Your task to perform on an android device: star an email in the gmail app Image 0: 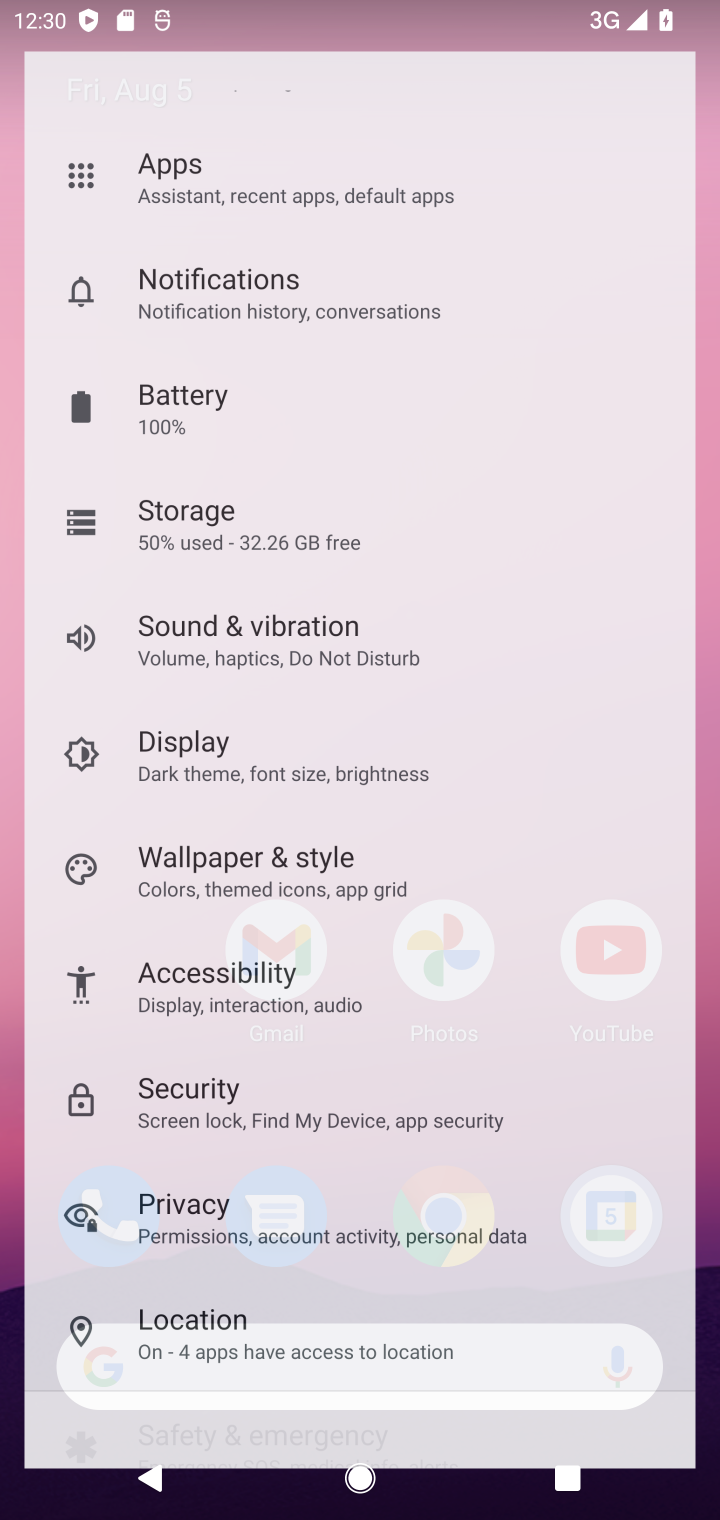
Step 0: press home button
Your task to perform on an android device: star an email in the gmail app Image 1: 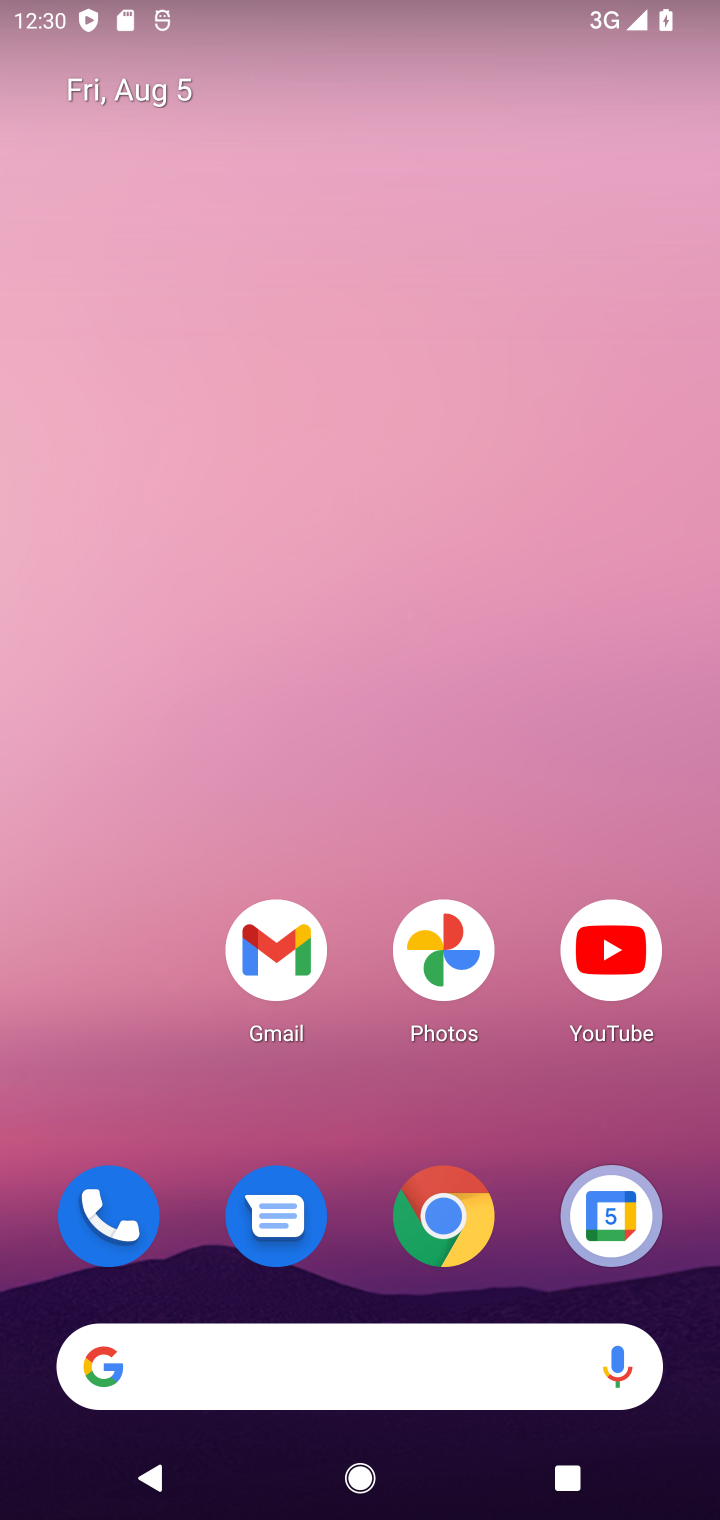
Step 1: press home button
Your task to perform on an android device: star an email in the gmail app Image 2: 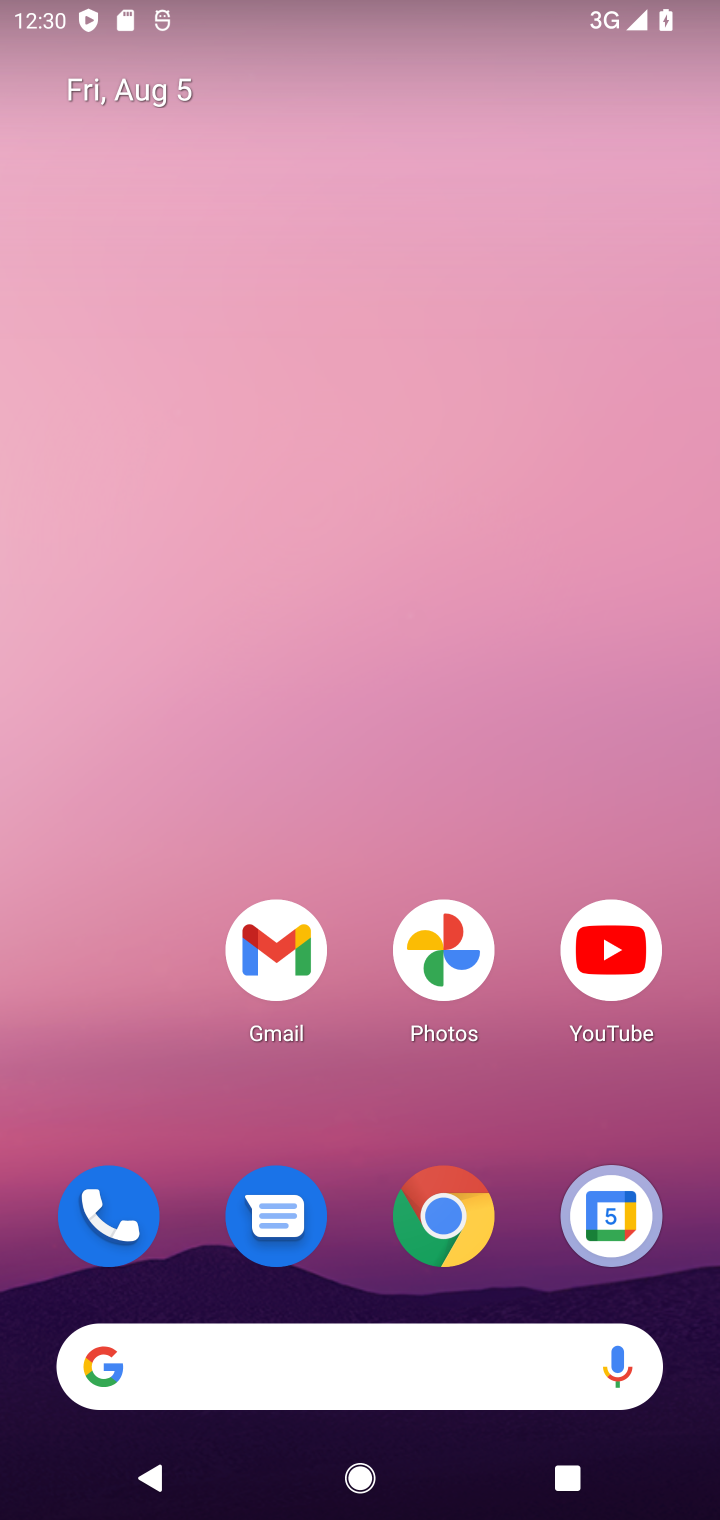
Step 2: drag from (471, 1363) to (568, 10)
Your task to perform on an android device: star an email in the gmail app Image 3: 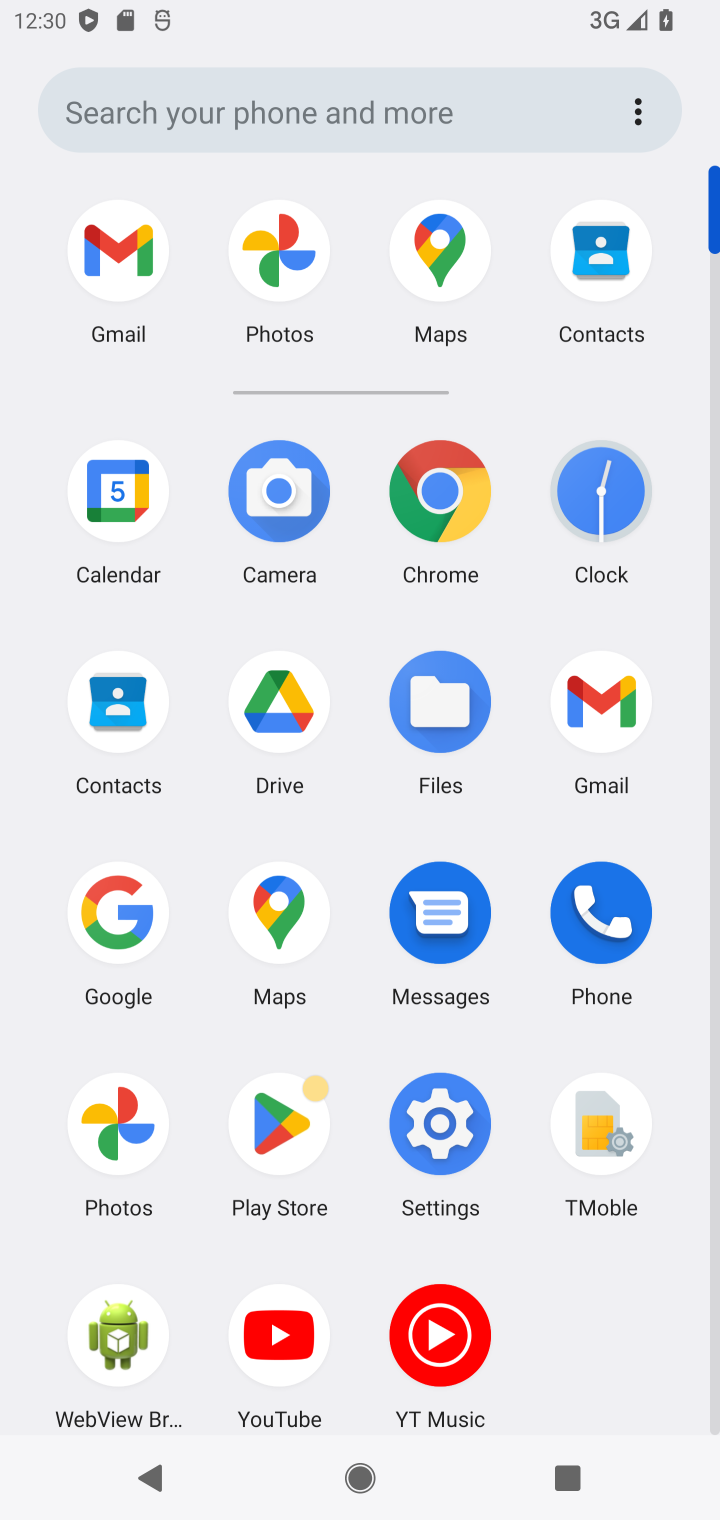
Step 3: click (598, 694)
Your task to perform on an android device: star an email in the gmail app Image 4: 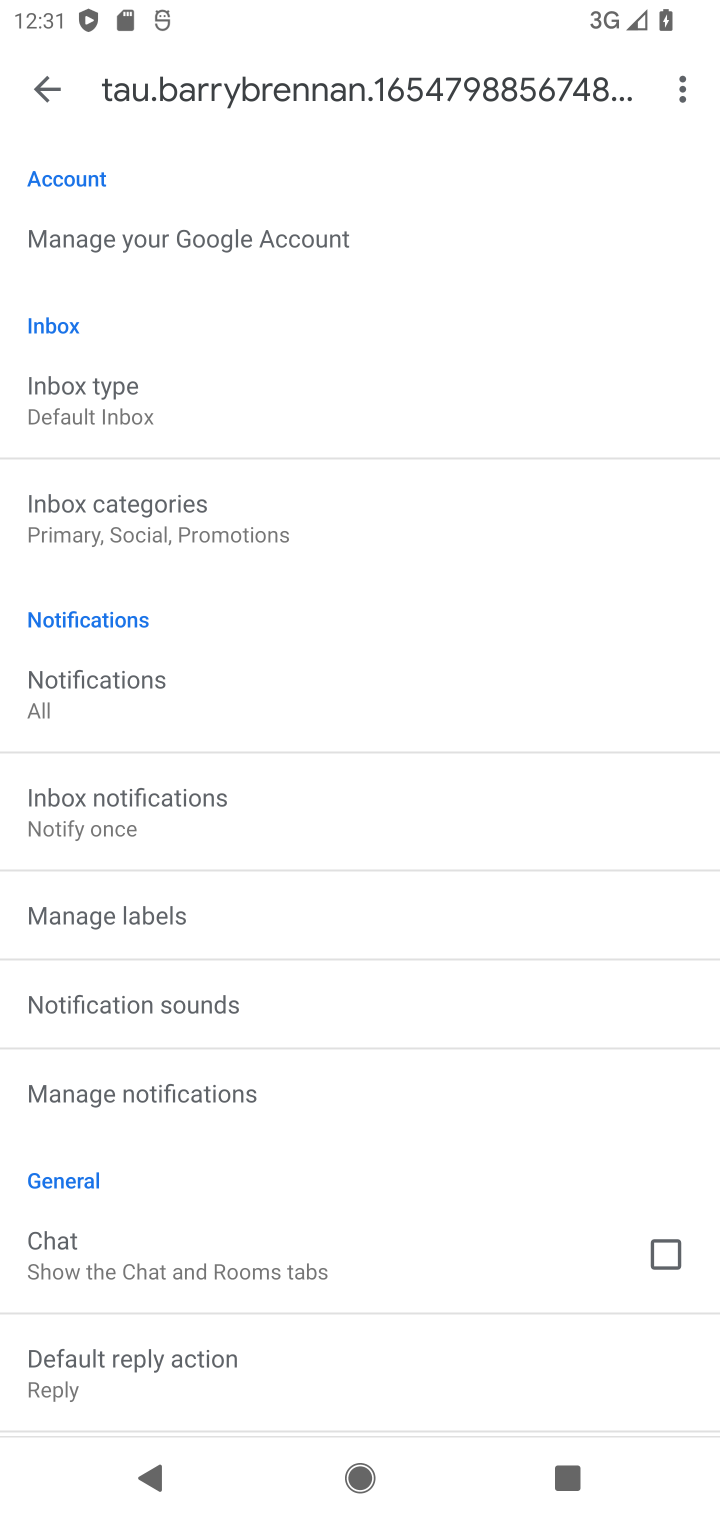
Step 4: press home button
Your task to perform on an android device: star an email in the gmail app Image 5: 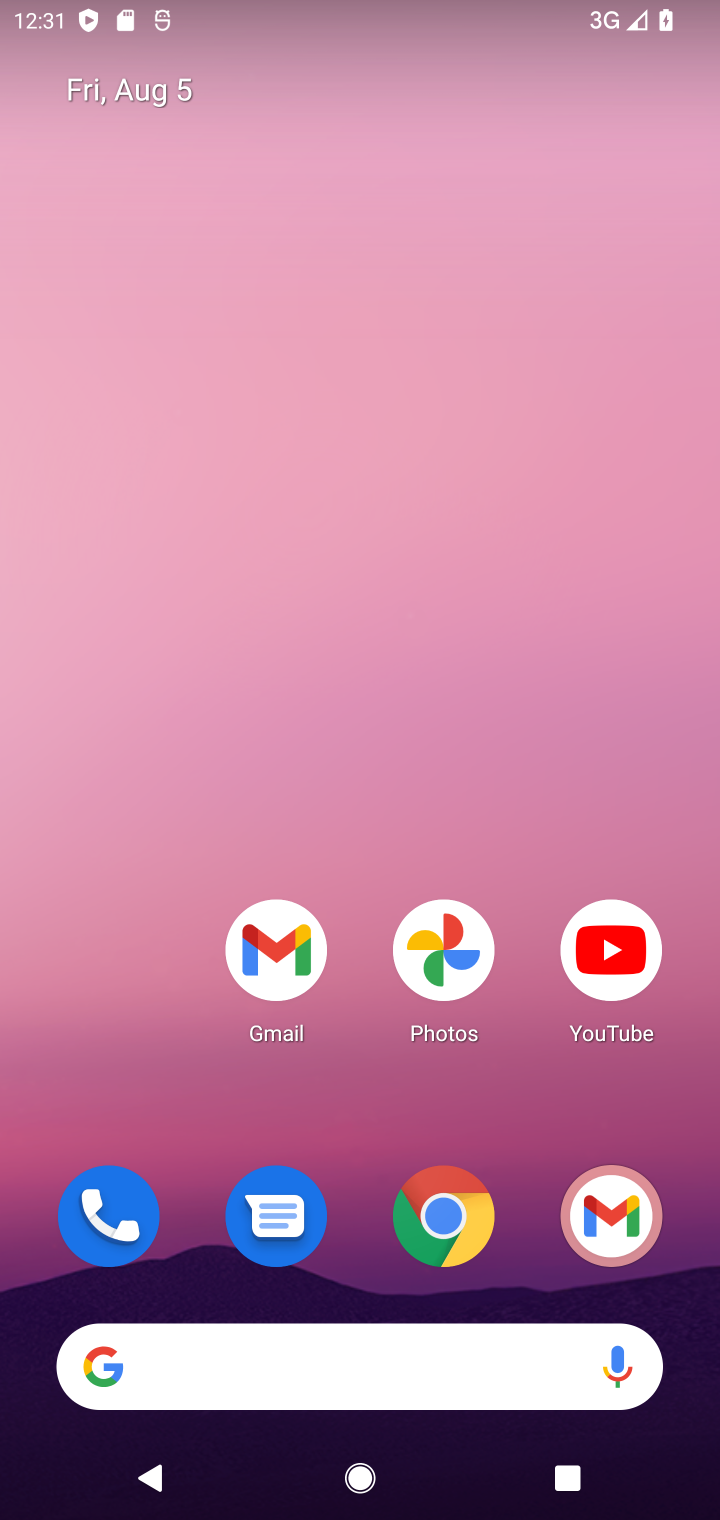
Step 5: drag from (411, 1344) to (582, 179)
Your task to perform on an android device: star an email in the gmail app Image 6: 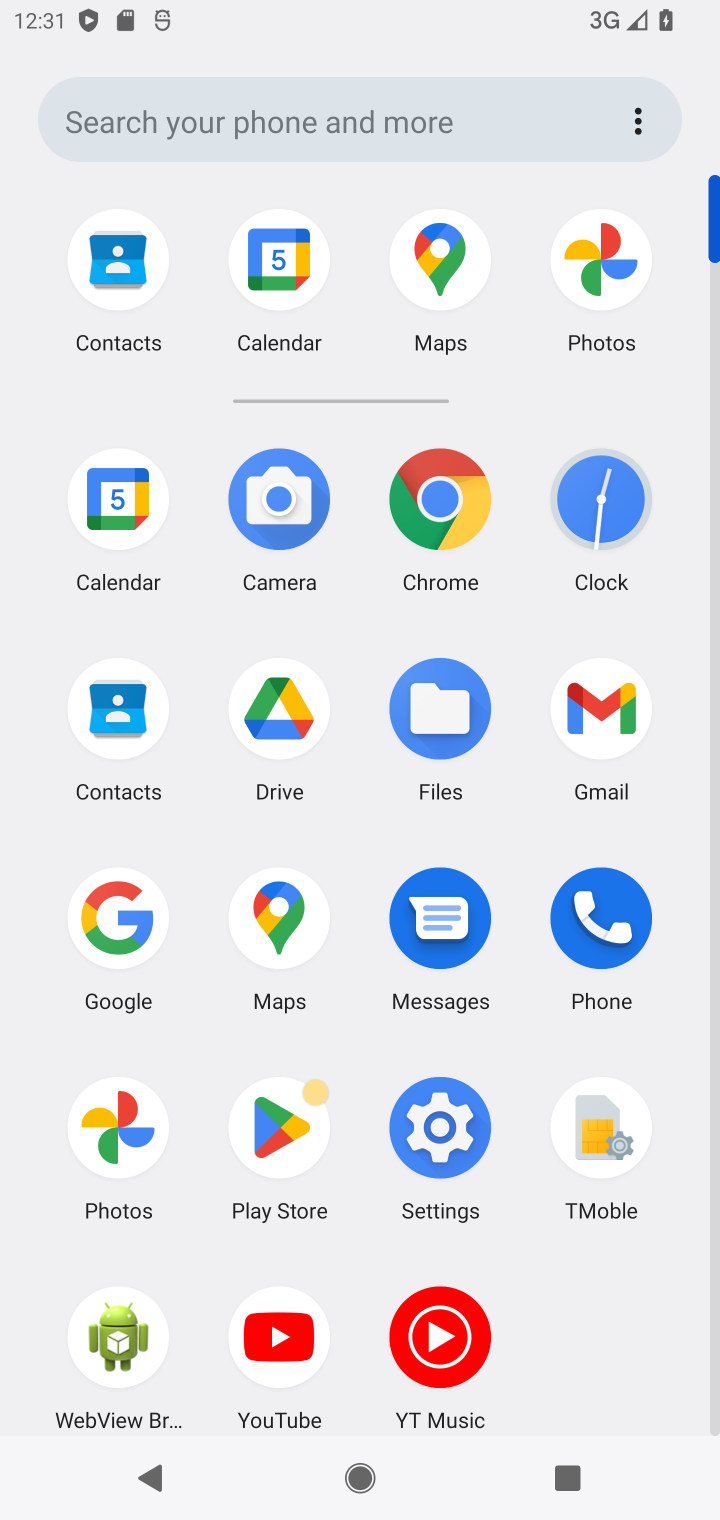
Step 6: click (588, 685)
Your task to perform on an android device: star an email in the gmail app Image 7: 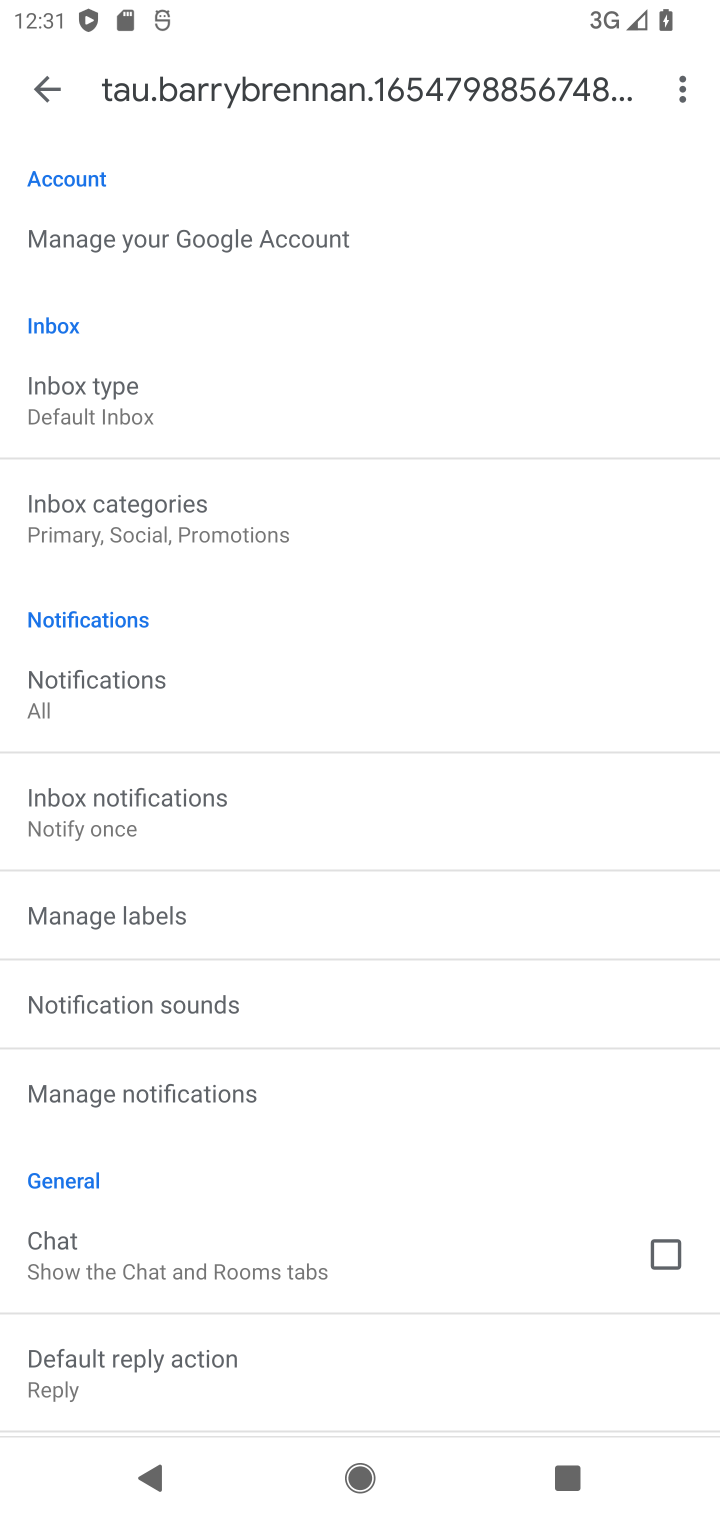
Step 7: press back button
Your task to perform on an android device: star an email in the gmail app Image 8: 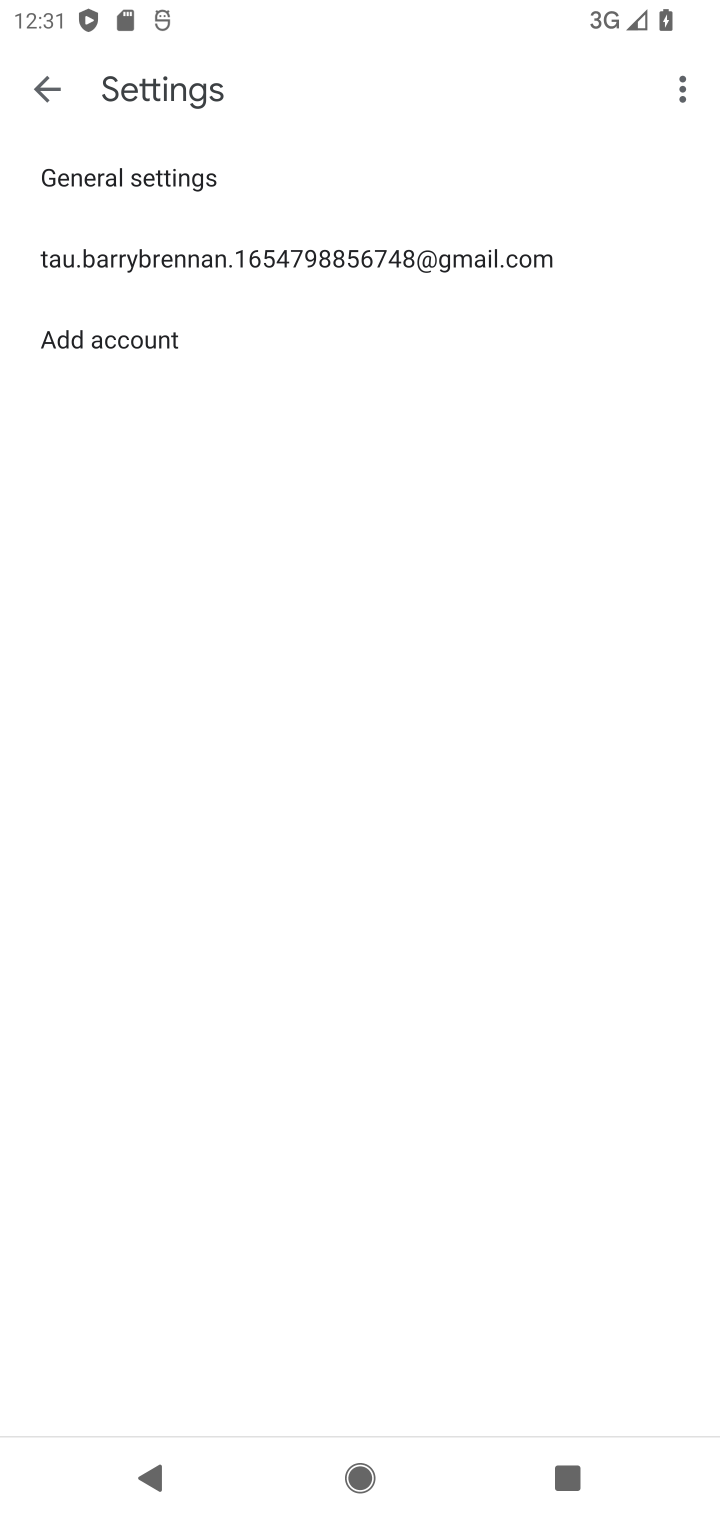
Step 8: press back button
Your task to perform on an android device: star an email in the gmail app Image 9: 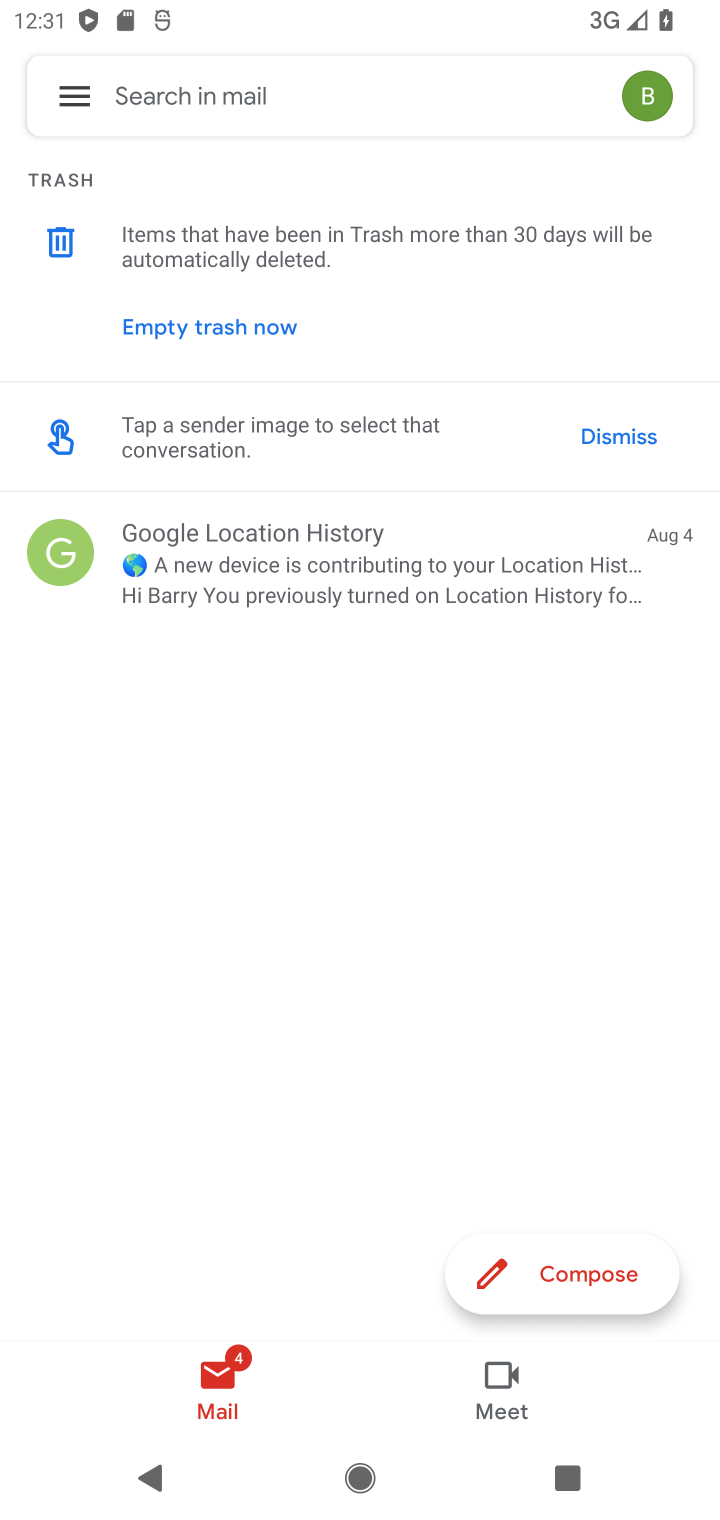
Step 9: click (78, 95)
Your task to perform on an android device: star an email in the gmail app Image 10: 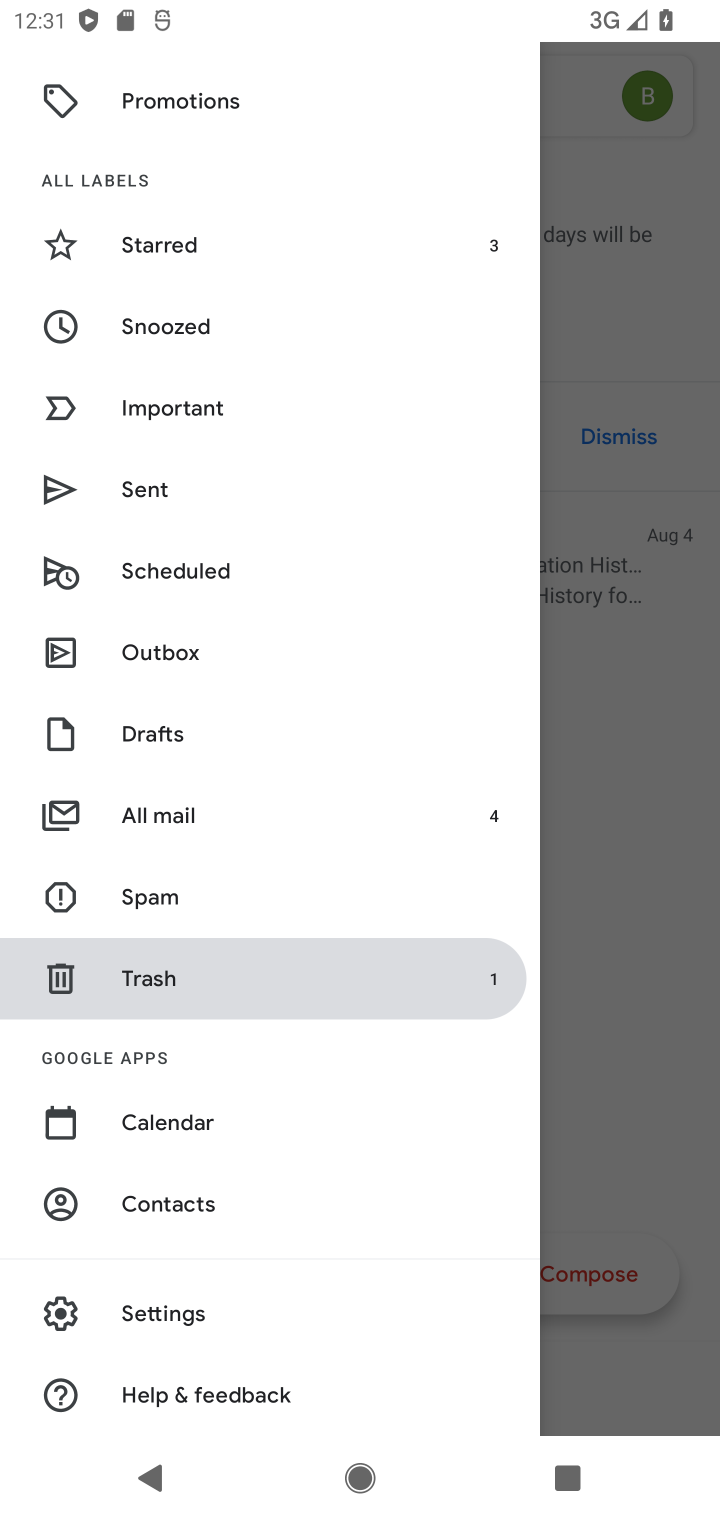
Step 10: click (183, 240)
Your task to perform on an android device: star an email in the gmail app Image 11: 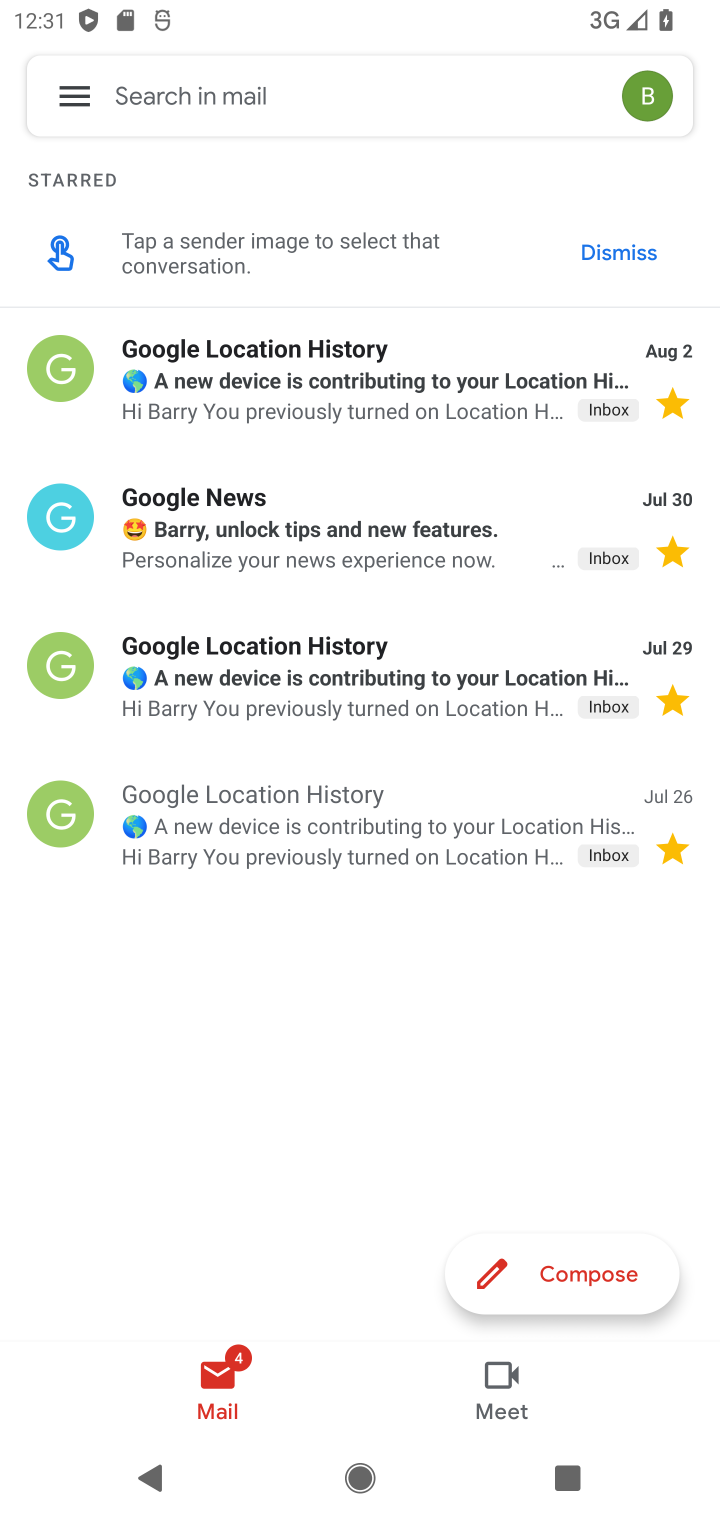
Step 11: task complete